Your task to perform on an android device: Open Reddit.com Image 0: 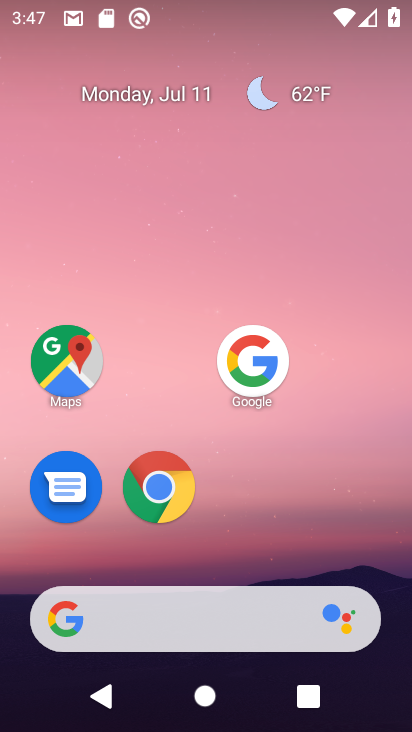
Step 0: click (155, 477)
Your task to perform on an android device: Open Reddit.com Image 1: 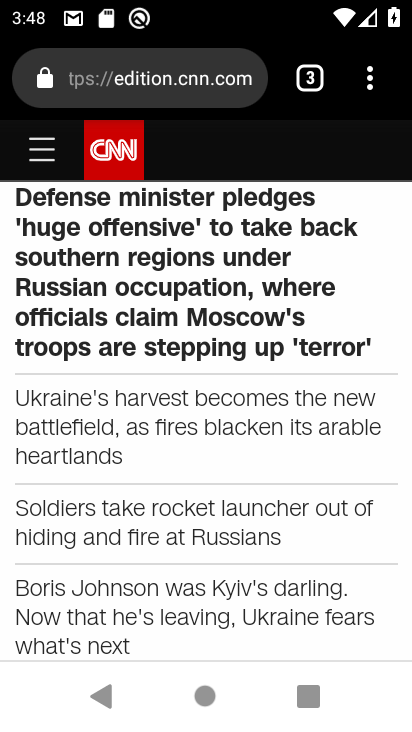
Step 1: drag from (372, 80) to (187, 153)
Your task to perform on an android device: Open Reddit.com Image 2: 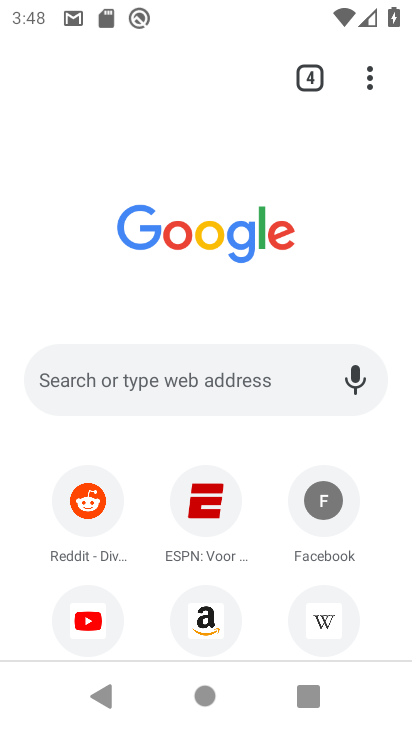
Step 2: click (102, 516)
Your task to perform on an android device: Open Reddit.com Image 3: 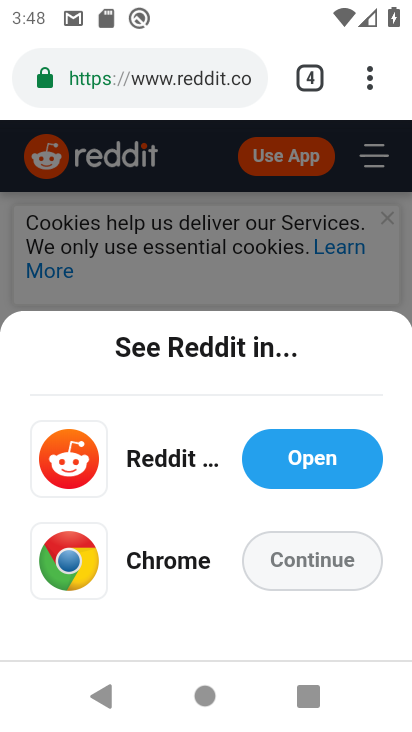
Step 3: task complete